Your task to perform on an android device: toggle wifi Image 0: 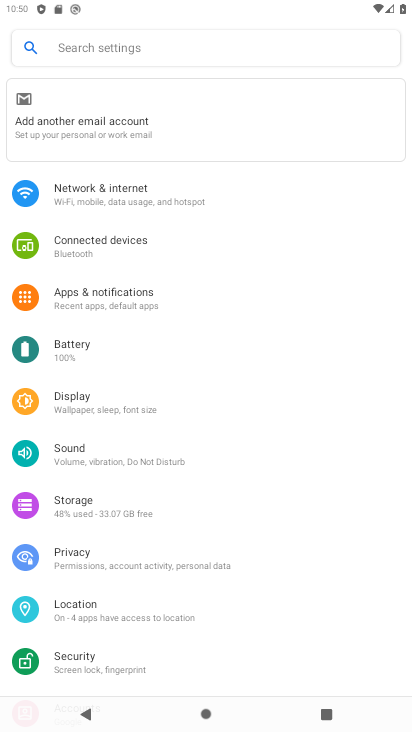
Step 0: click (91, 185)
Your task to perform on an android device: toggle wifi Image 1: 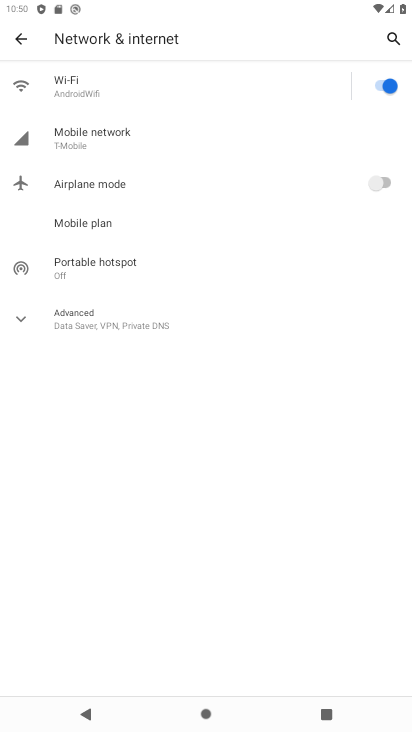
Step 1: click (378, 82)
Your task to perform on an android device: toggle wifi Image 2: 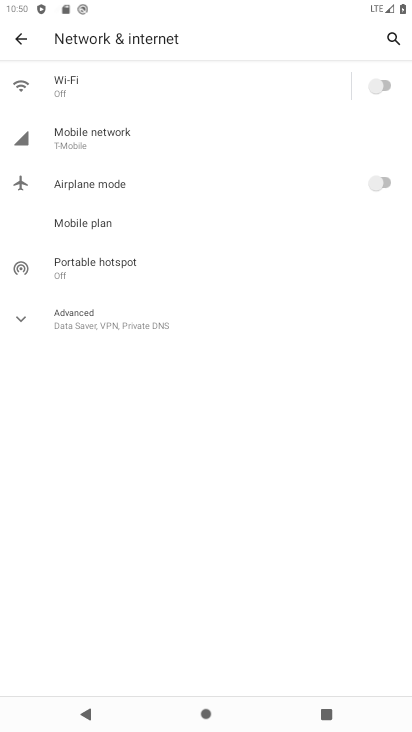
Step 2: task complete